Your task to perform on an android device: Open ESPN.com Image 0: 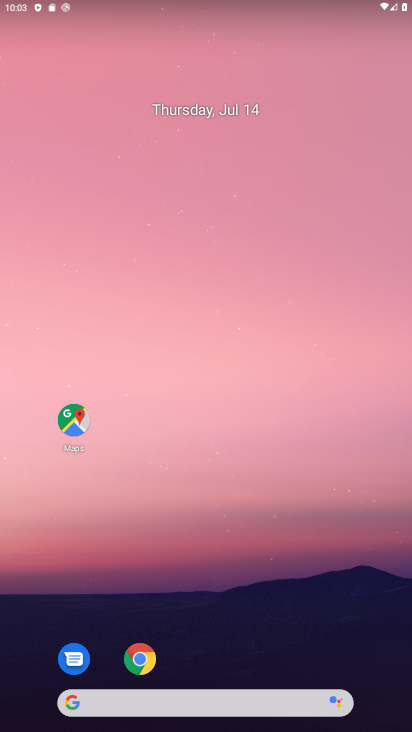
Step 0: click (134, 657)
Your task to perform on an android device: Open ESPN.com Image 1: 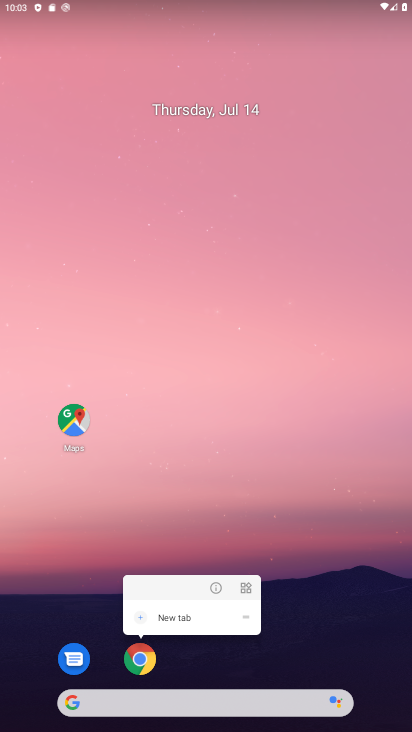
Step 1: drag from (214, 652) to (197, 346)
Your task to perform on an android device: Open ESPN.com Image 2: 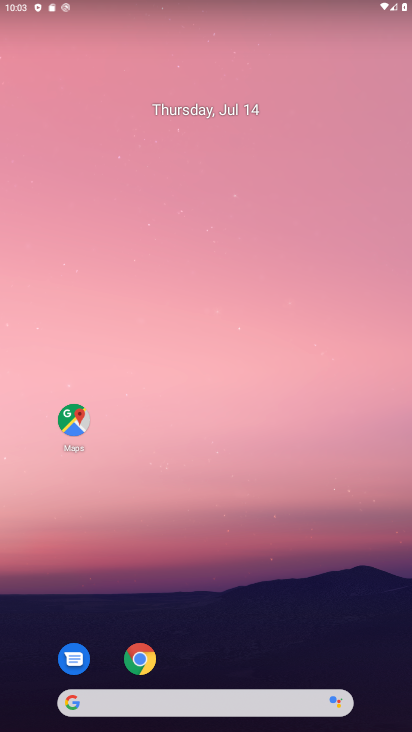
Step 2: drag from (198, 624) to (176, 242)
Your task to perform on an android device: Open ESPN.com Image 3: 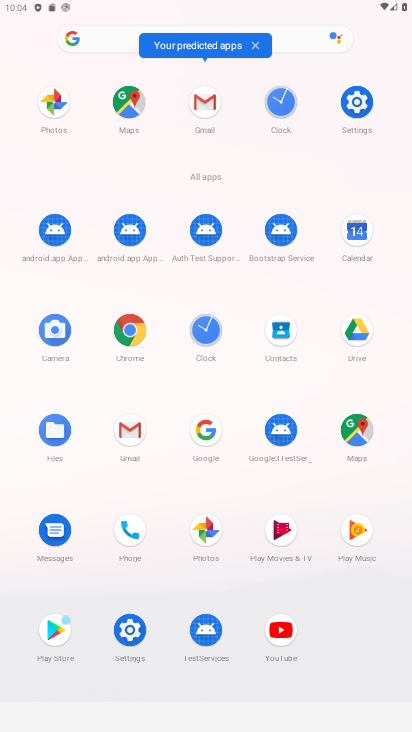
Step 3: click (121, 330)
Your task to perform on an android device: Open ESPN.com Image 4: 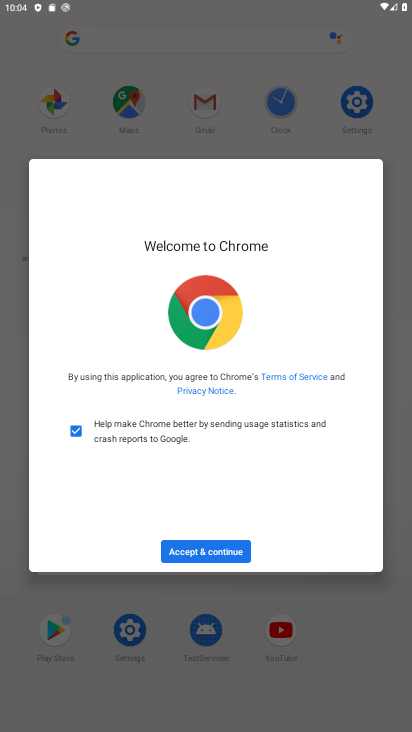
Step 4: click (202, 540)
Your task to perform on an android device: Open ESPN.com Image 5: 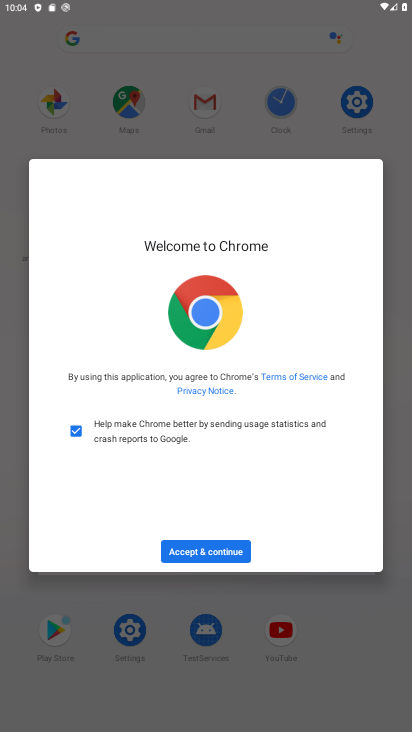
Step 5: click (206, 555)
Your task to perform on an android device: Open ESPN.com Image 6: 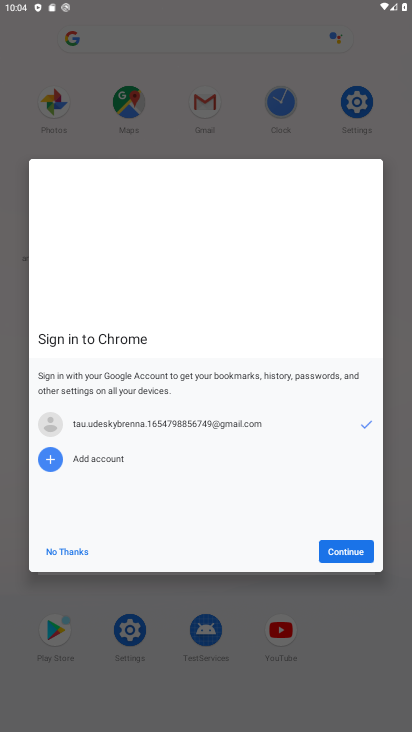
Step 6: click (333, 553)
Your task to perform on an android device: Open ESPN.com Image 7: 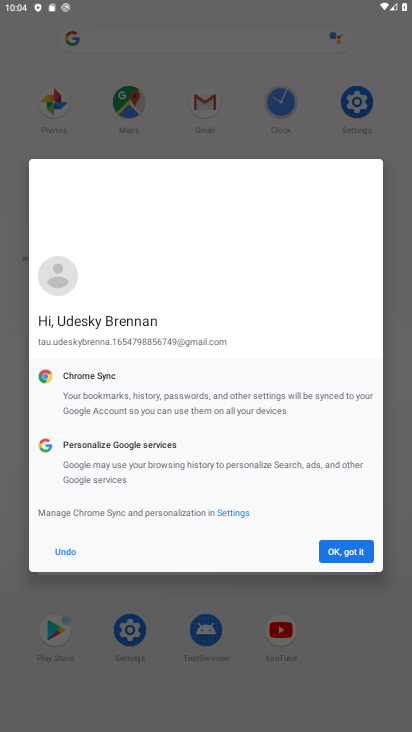
Step 7: click (336, 555)
Your task to perform on an android device: Open ESPN.com Image 8: 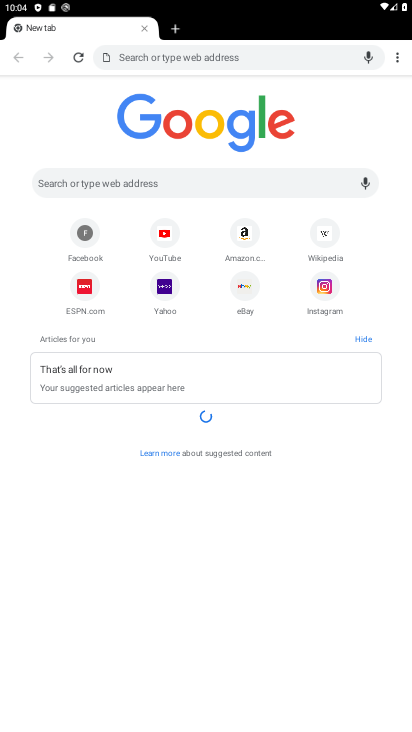
Step 8: click (92, 294)
Your task to perform on an android device: Open ESPN.com Image 9: 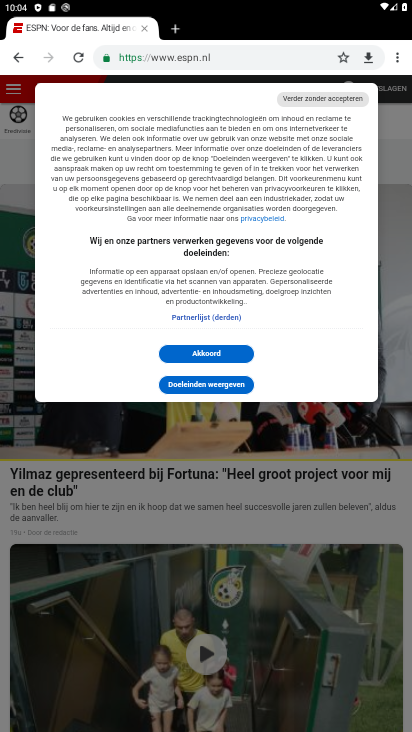
Step 9: task complete